Your task to perform on an android device: set the stopwatch Image 0: 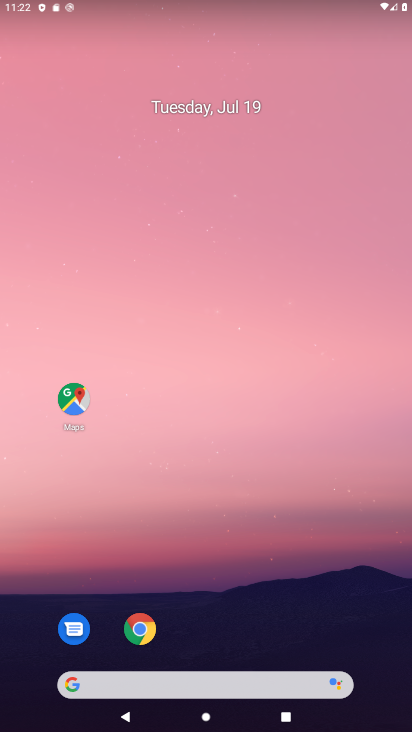
Step 0: drag from (292, 630) to (305, 144)
Your task to perform on an android device: set the stopwatch Image 1: 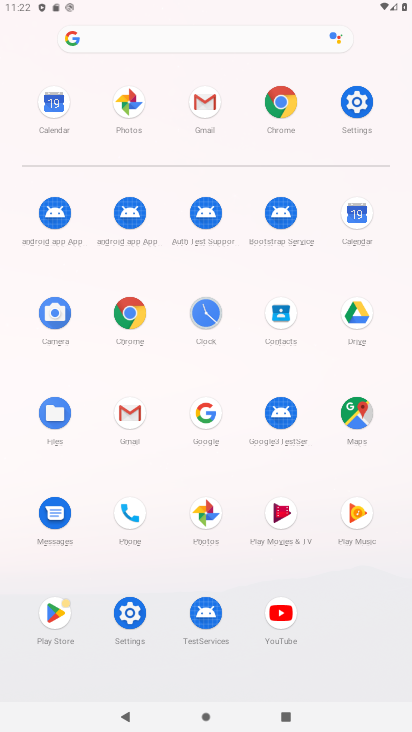
Step 1: click (209, 314)
Your task to perform on an android device: set the stopwatch Image 2: 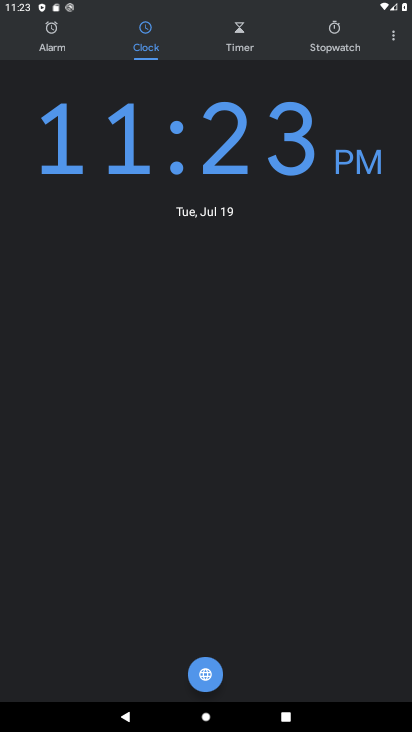
Step 2: click (330, 28)
Your task to perform on an android device: set the stopwatch Image 3: 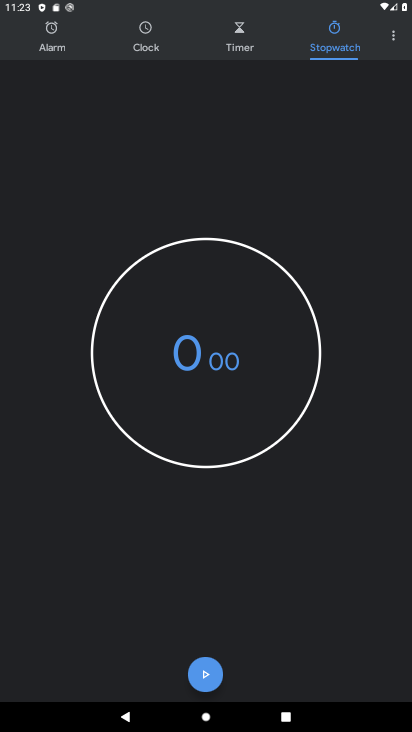
Step 3: click (207, 676)
Your task to perform on an android device: set the stopwatch Image 4: 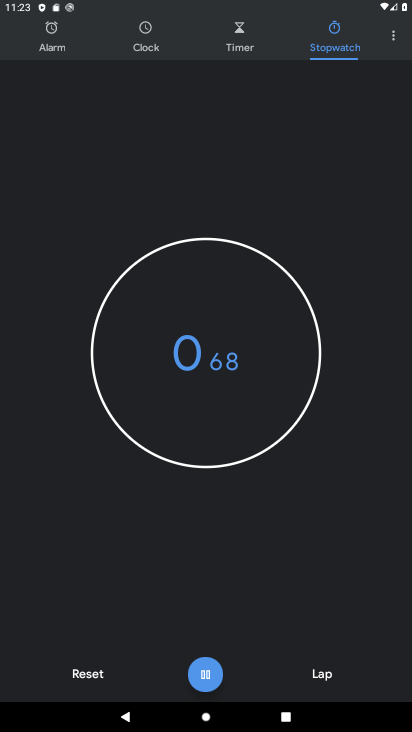
Step 4: click (207, 676)
Your task to perform on an android device: set the stopwatch Image 5: 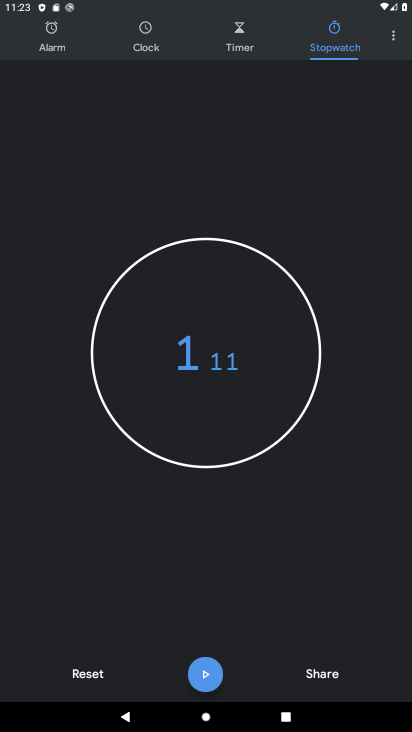
Step 5: task complete